Your task to perform on an android device: Go to CNN.com Image 0: 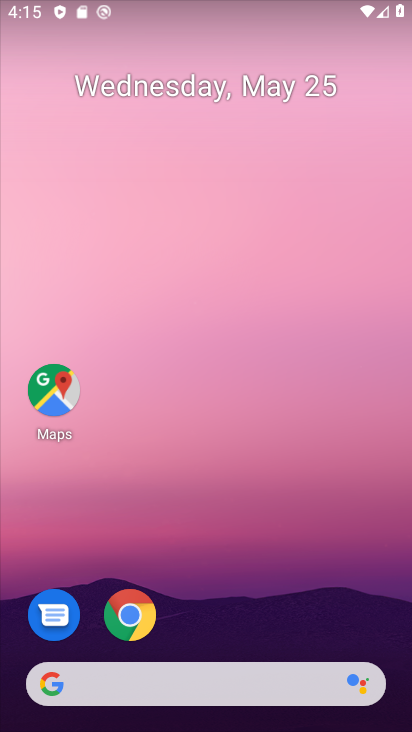
Step 0: click (133, 631)
Your task to perform on an android device: Go to CNN.com Image 1: 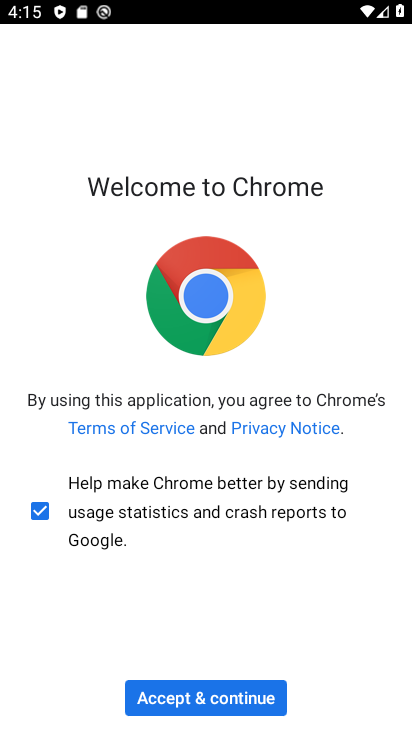
Step 1: click (206, 684)
Your task to perform on an android device: Go to CNN.com Image 2: 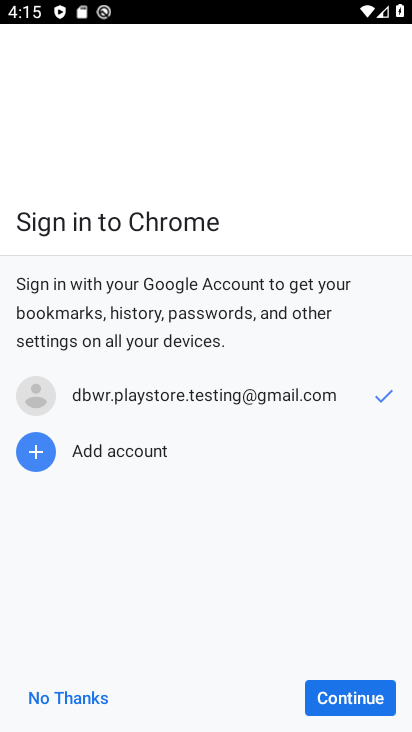
Step 2: click (365, 701)
Your task to perform on an android device: Go to CNN.com Image 3: 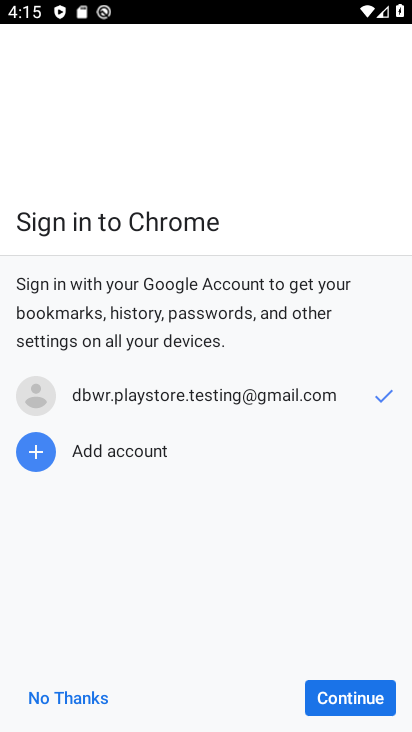
Step 3: click (365, 701)
Your task to perform on an android device: Go to CNN.com Image 4: 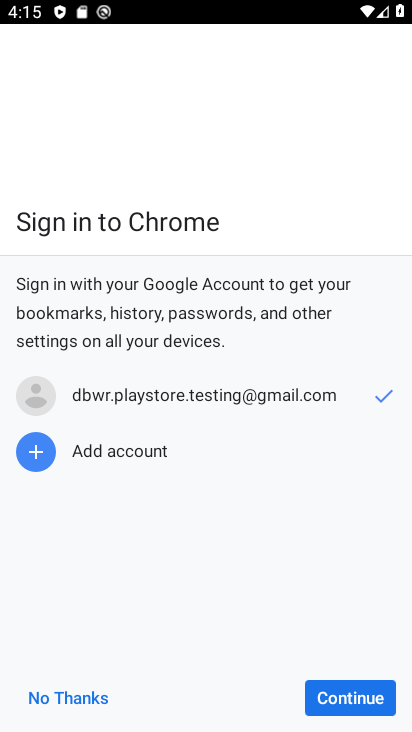
Step 4: click (365, 701)
Your task to perform on an android device: Go to CNN.com Image 5: 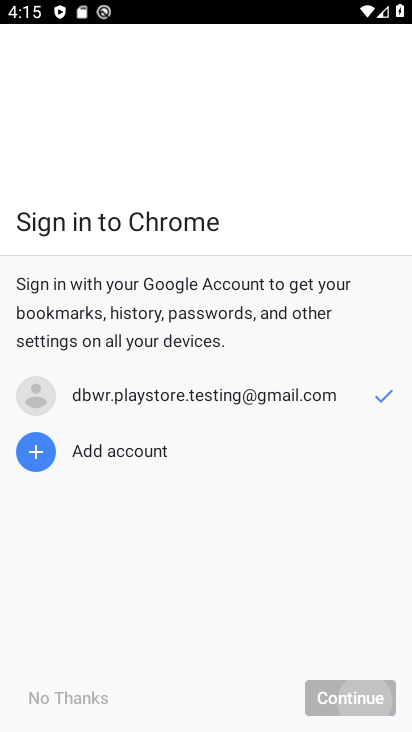
Step 5: click (365, 701)
Your task to perform on an android device: Go to CNN.com Image 6: 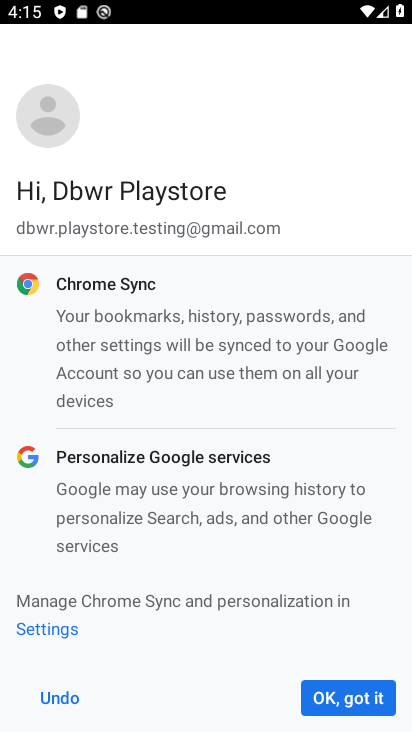
Step 6: click (365, 701)
Your task to perform on an android device: Go to CNN.com Image 7: 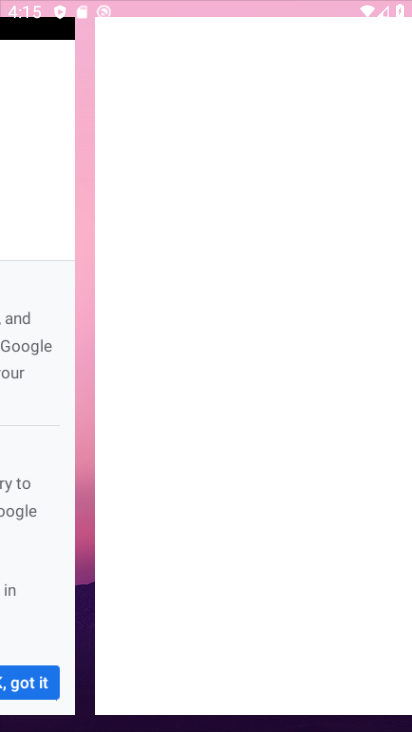
Step 7: click (365, 701)
Your task to perform on an android device: Go to CNN.com Image 8: 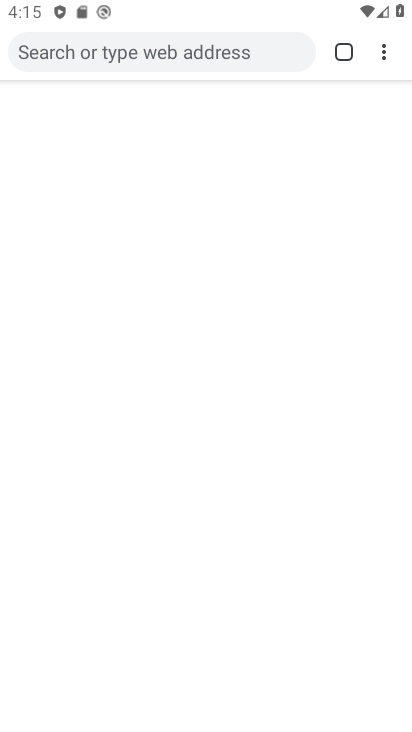
Step 8: click (365, 701)
Your task to perform on an android device: Go to CNN.com Image 9: 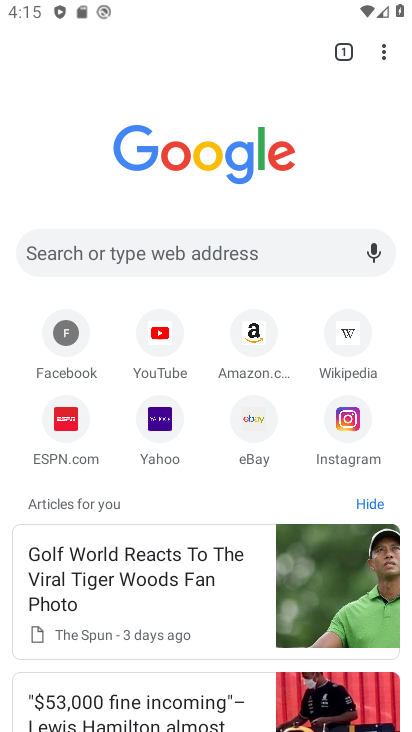
Step 9: click (191, 247)
Your task to perform on an android device: Go to CNN.com Image 10: 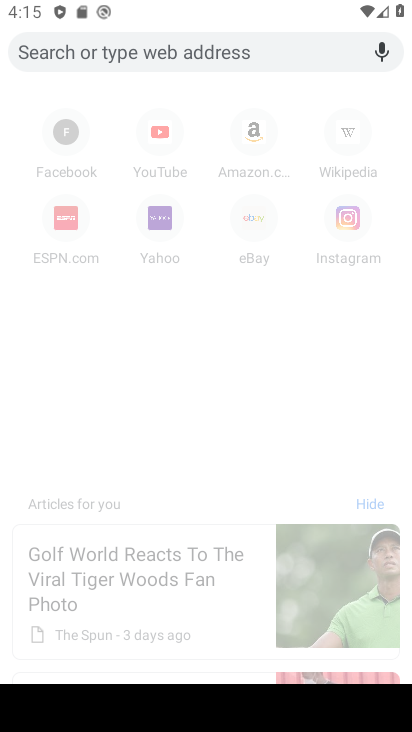
Step 10: type " CNN.com"
Your task to perform on an android device: Go to CNN.com Image 11: 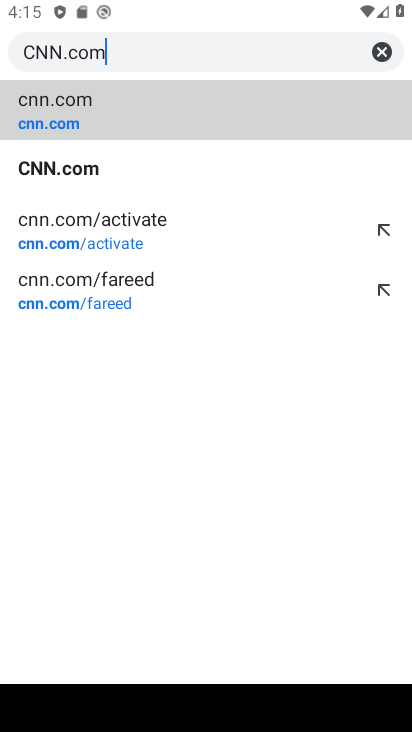
Step 11: click (169, 86)
Your task to perform on an android device: Go to CNN.com Image 12: 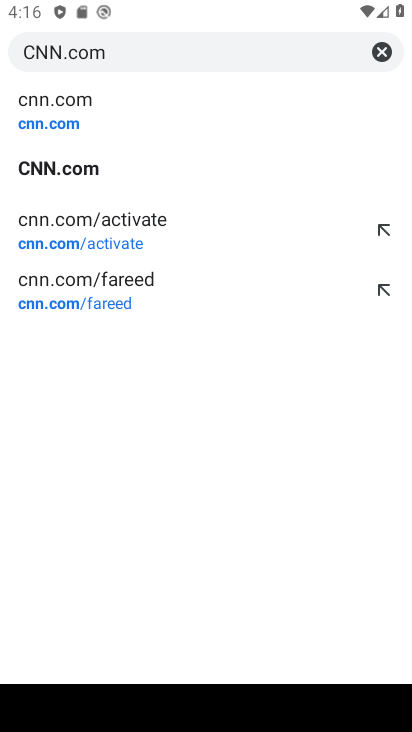
Step 12: click (211, 107)
Your task to perform on an android device: Go to CNN.com Image 13: 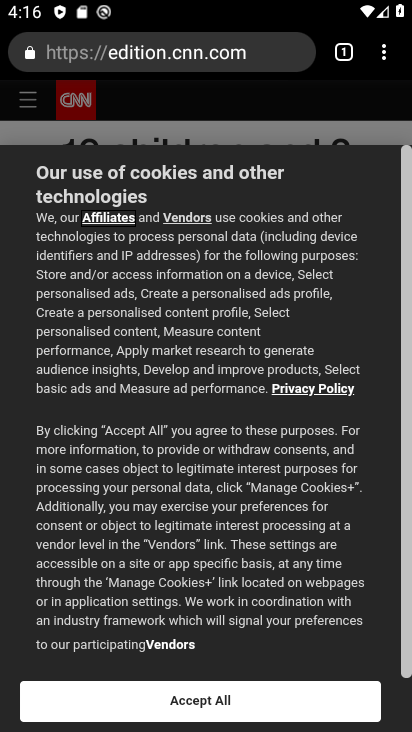
Step 13: task complete